Your task to perform on an android device: Search for Mexican restaurants on Maps Image 0: 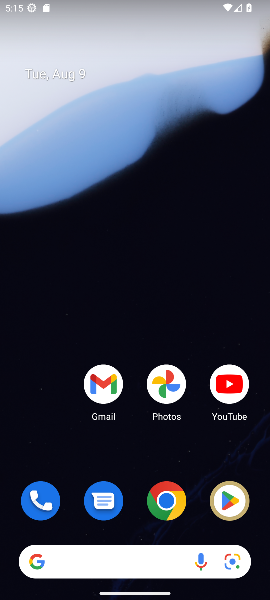
Step 0: drag from (55, 554) to (136, 144)
Your task to perform on an android device: Search for Mexican restaurants on Maps Image 1: 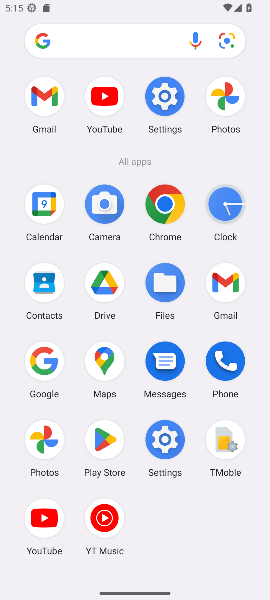
Step 1: click (101, 364)
Your task to perform on an android device: Search for Mexican restaurants on Maps Image 2: 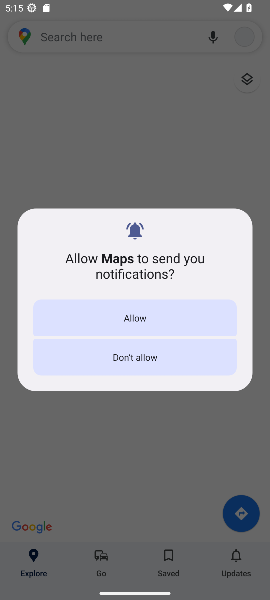
Step 2: click (103, 319)
Your task to perform on an android device: Search for Mexican restaurants on Maps Image 3: 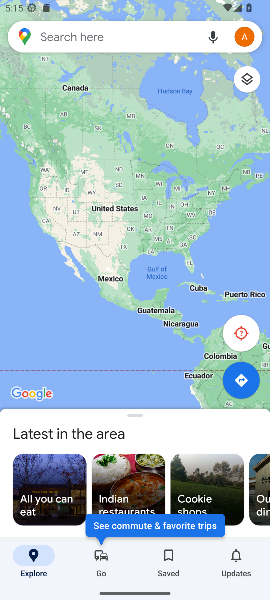
Step 3: click (98, 37)
Your task to perform on an android device: Search for Mexican restaurants on Maps Image 4: 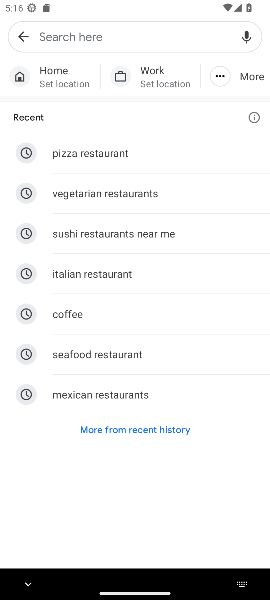
Step 4: click (63, 391)
Your task to perform on an android device: Search for Mexican restaurants on Maps Image 5: 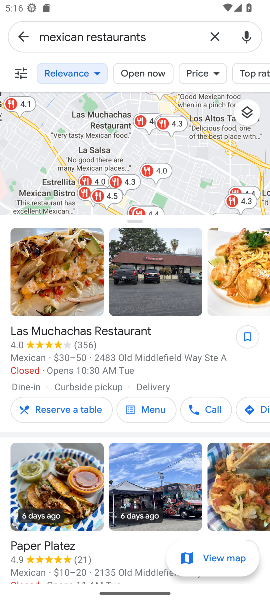
Step 5: task complete